Your task to perform on an android device: Go to battery settings Image 0: 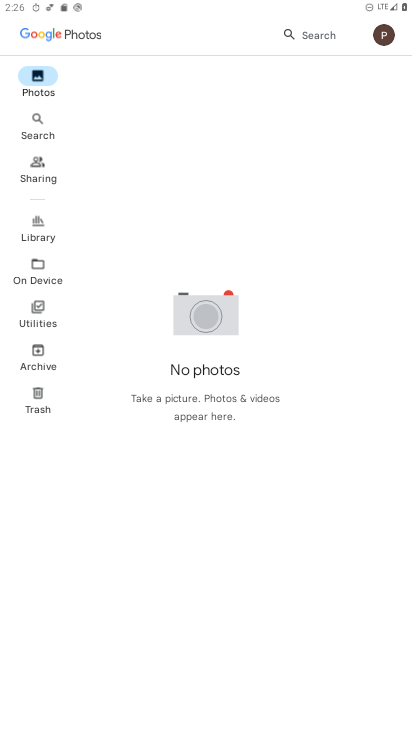
Step 0: press home button
Your task to perform on an android device: Go to battery settings Image 1: 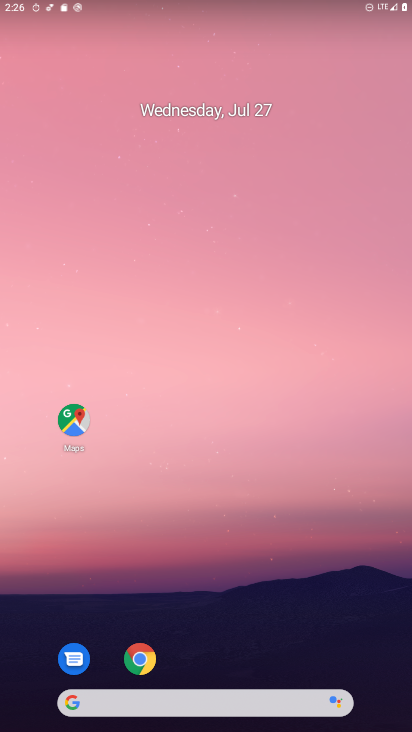
Step 1: drag from (326, 574) to (260, 144)
Your task to perform on an android device: Go to battery settings Image 2: 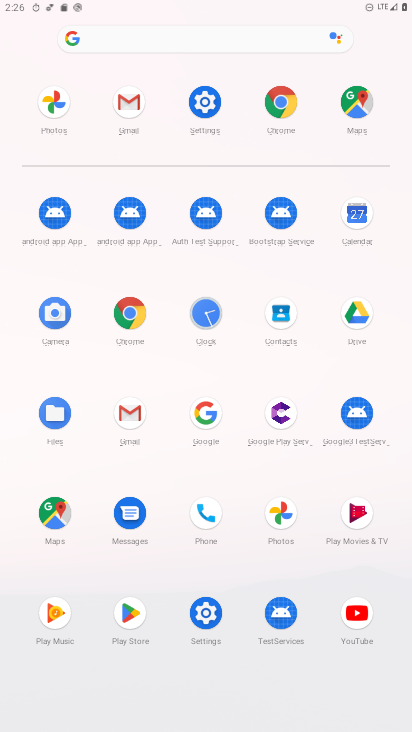
Step 2: click (209, 94)
Your task to perform on an android device: Go to battery settings Image 3: 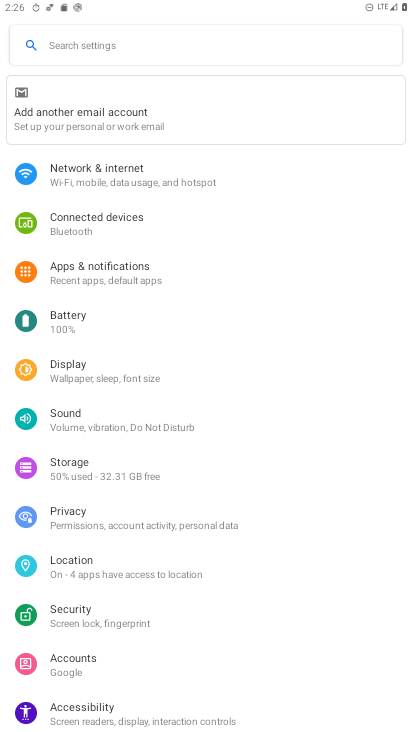
Step 3: click (66, 325)
Your task to perform on an android device: Go to battery settings Image 4: 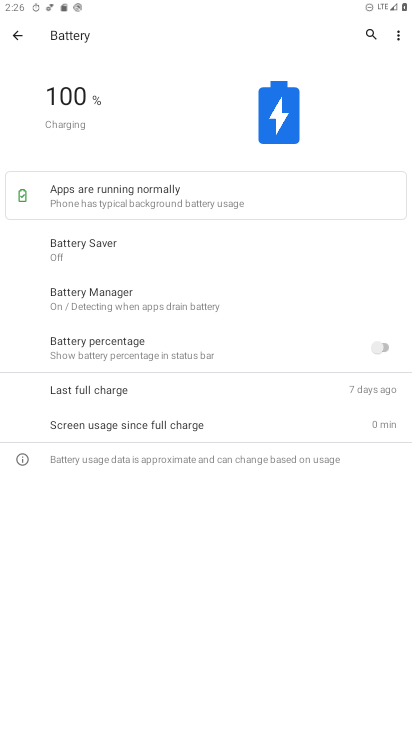
Step 4: task complete